Your task to perform on an android device: Clear the shopping cart on target.com. Image 0: 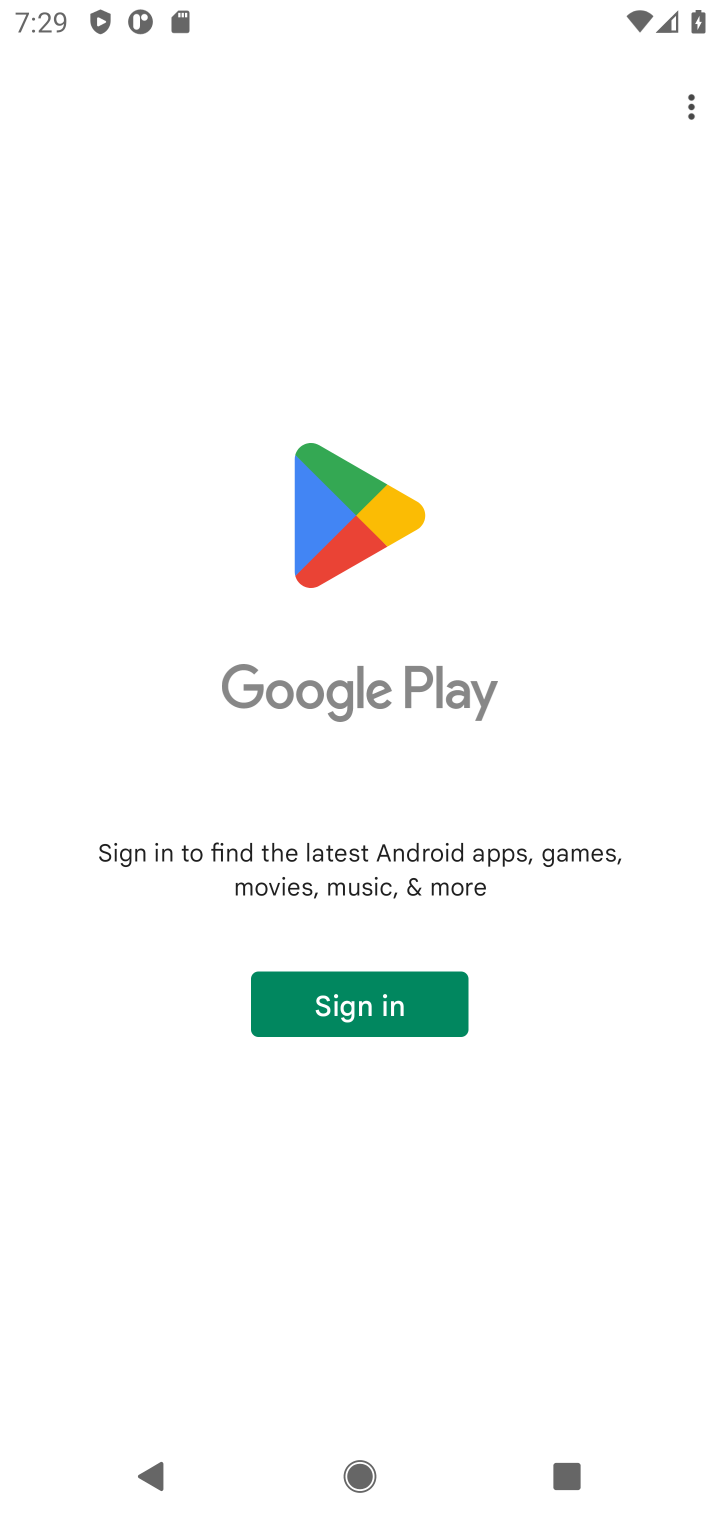
Step 0: press home button
Your task to perform on an android device: Clear the shopping cart on target.com. Image 1: 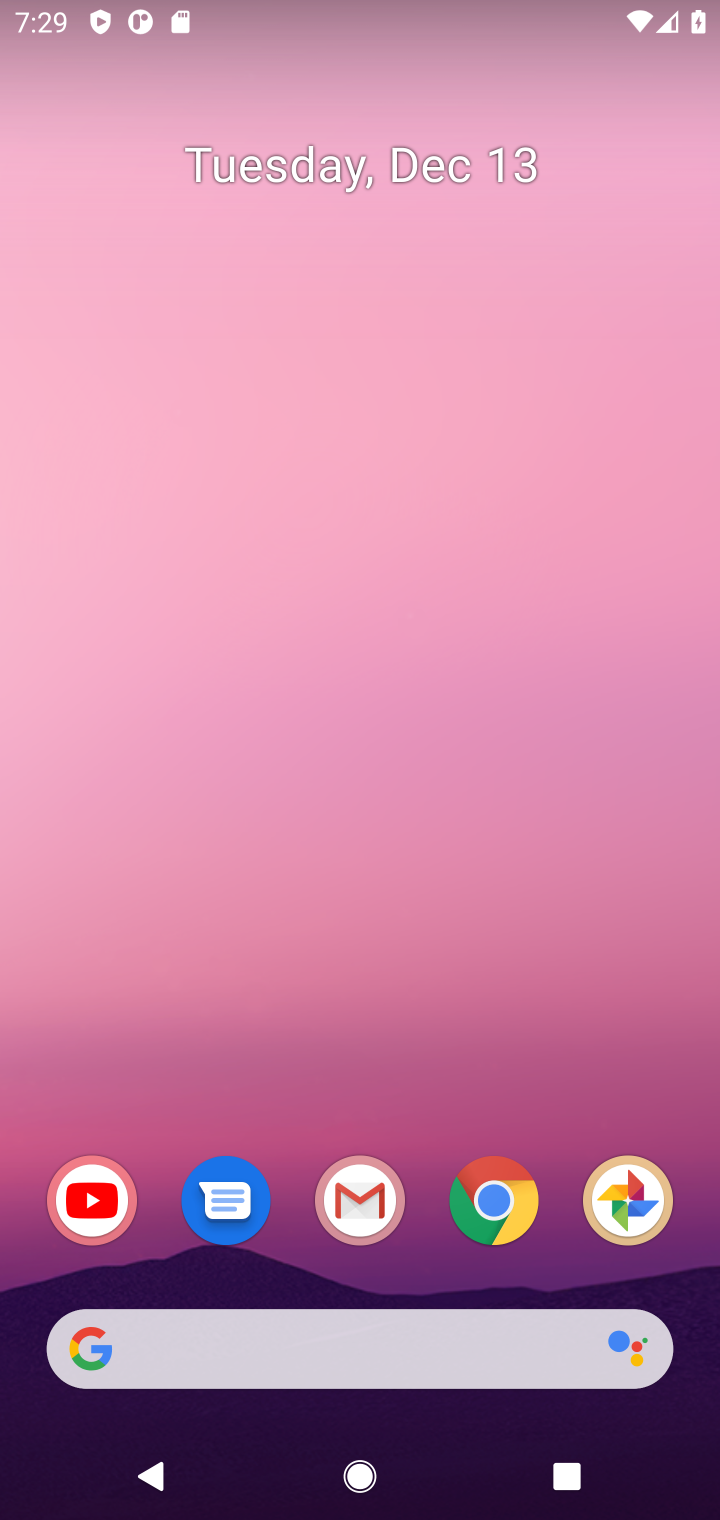
Step 1: click (441, 1338)
Your task to perform on an android device: Clear the shopping cart on target.com. Image 2: 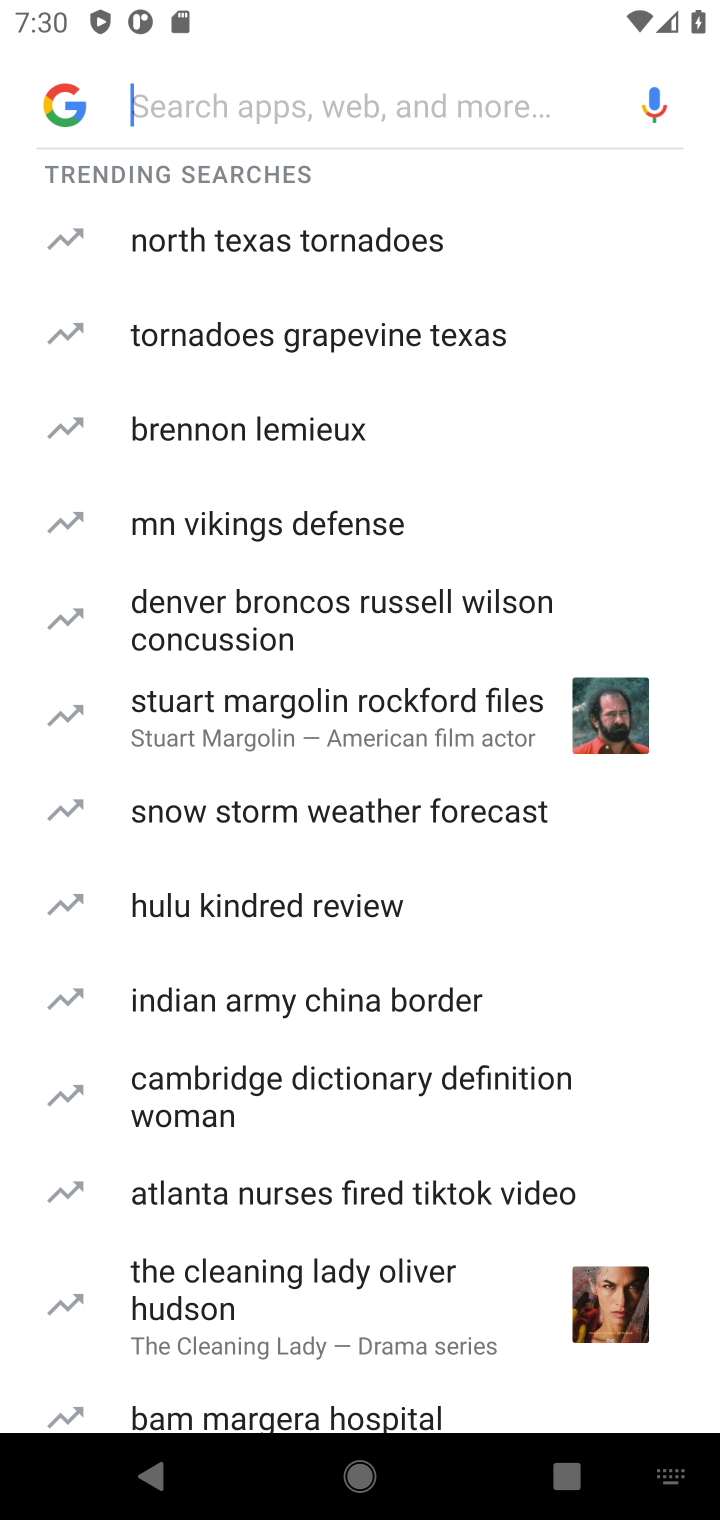
Step 2: type "target.com"
Your task to perform on an android device: Clear the shopping cart on target.com. Image 3: 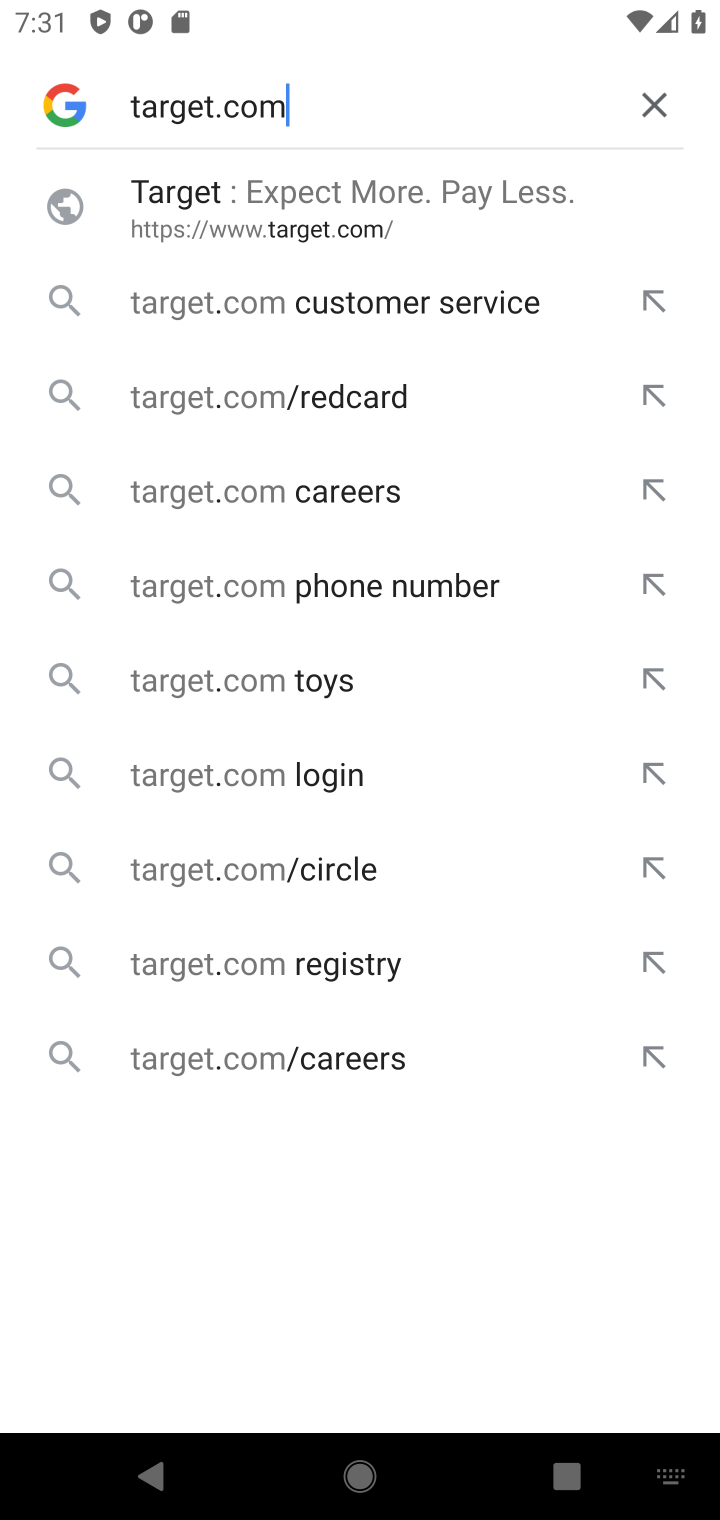
Step 3: click (270, 192)
Your task to perform on an android device: Clear the shopping cart on target.com. Image 4: 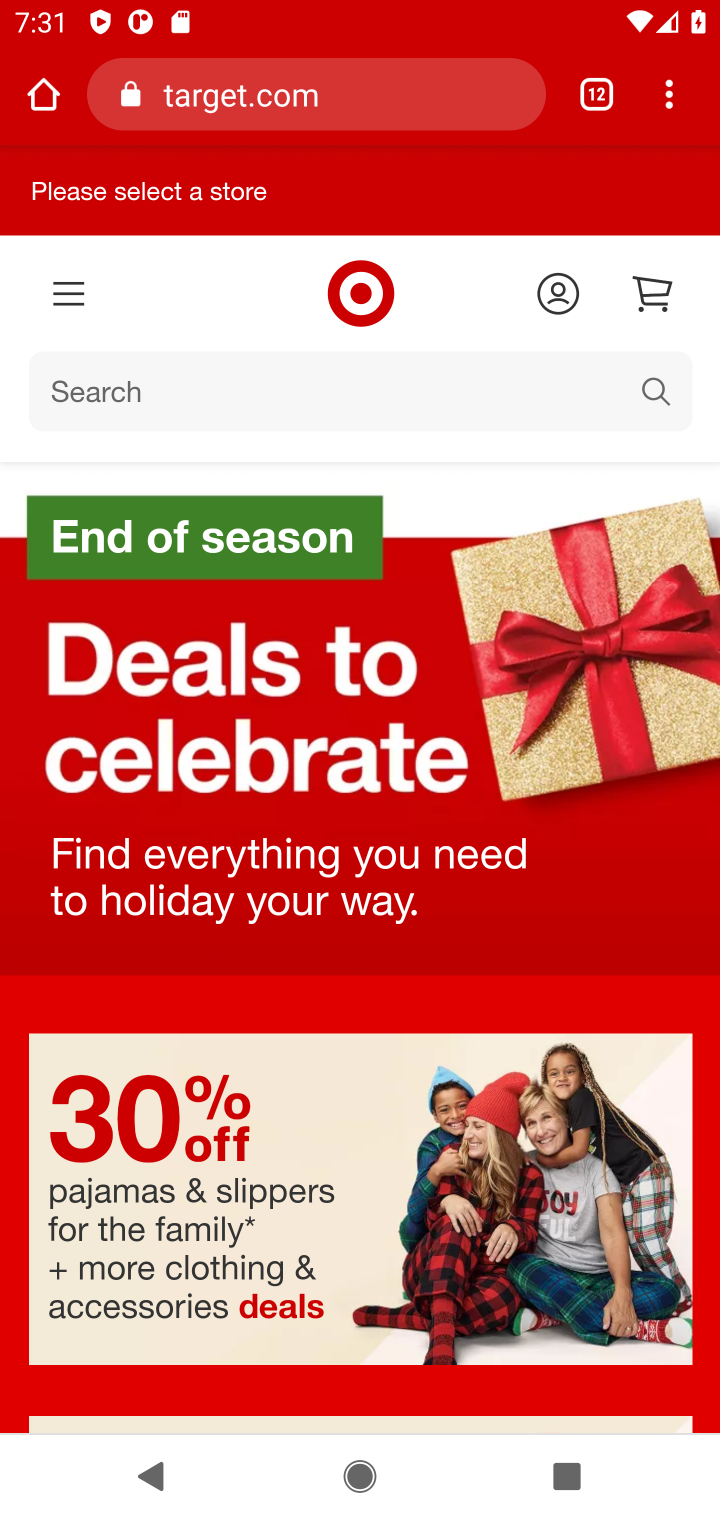
Step 4: click (659, 304)
Your task to perform on an android device: Clear the shopping cart on target.com. Image 5: 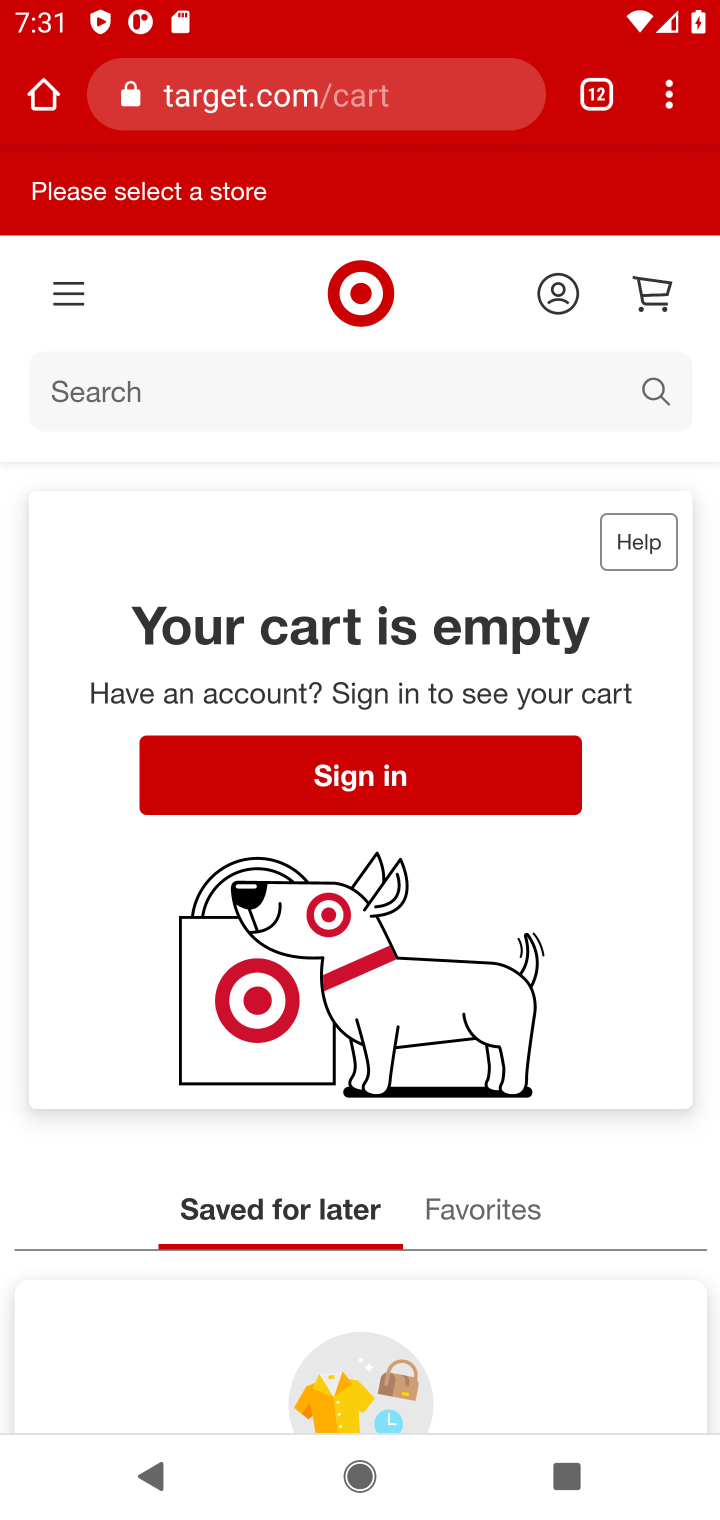
Step 5: task complete